Your task to perform on an android device: Go to ESPN.com Image 0: 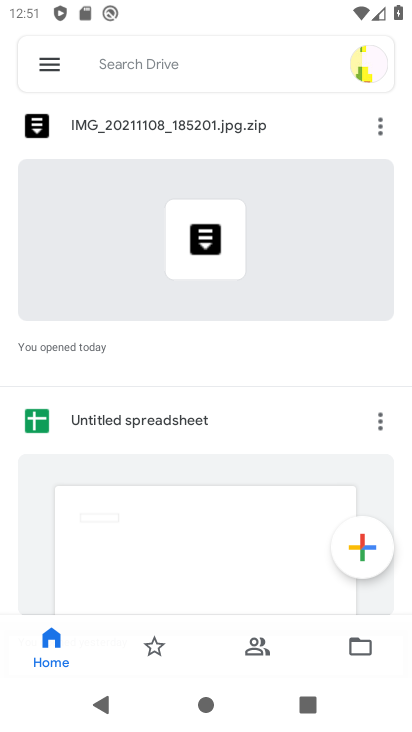
Step 0: press back button
Your task to perform on an android device: Go to ESPN.com Image 1: 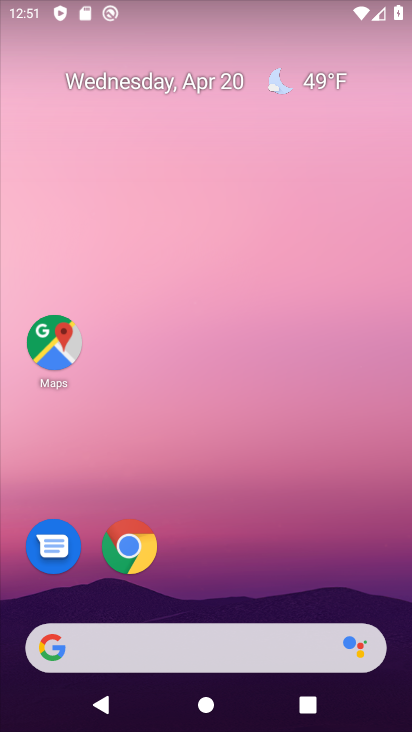
Step 1: click (136, 542)
Your task to perform on an android device: Go to ESPN.com Image 2: 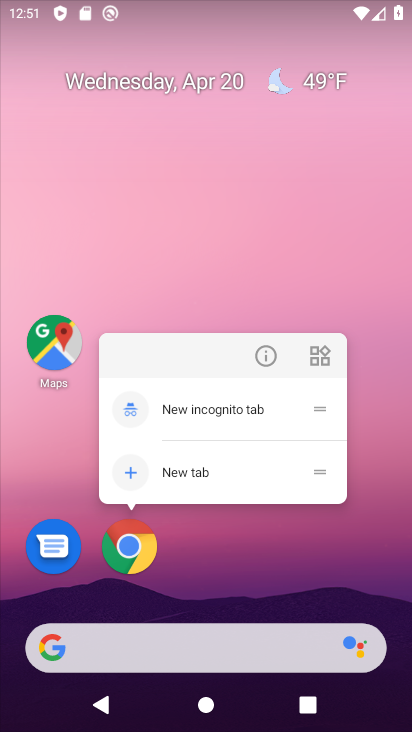
Step 2: click (136, 542)
Your task to perform on an android device: Go to ESPN.com Image 3: 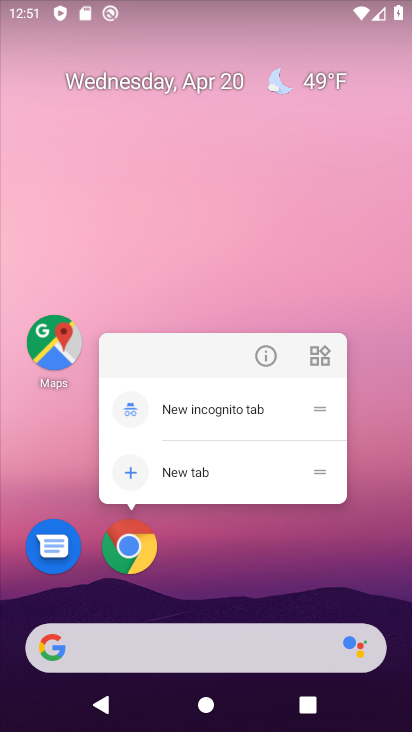
Step 3: click (124, 556)
Your task to perform on an android device: Go to ESPN.com Image 4: 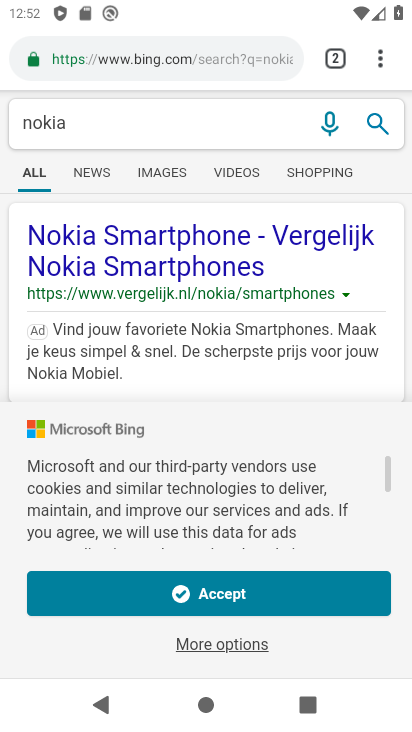
Step 4: click (337, 62)
Your task to perform on an android device: Go to ESPN.com Image 5: 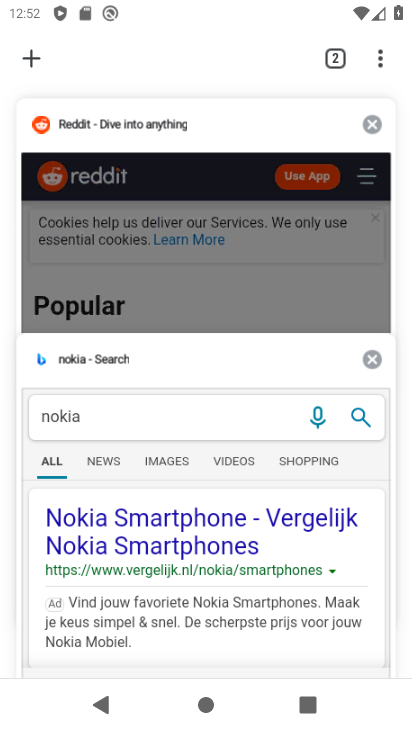
Step 5: click (30, 47)
Your task to perform on an android device: Go to ESPN.com Image 6: 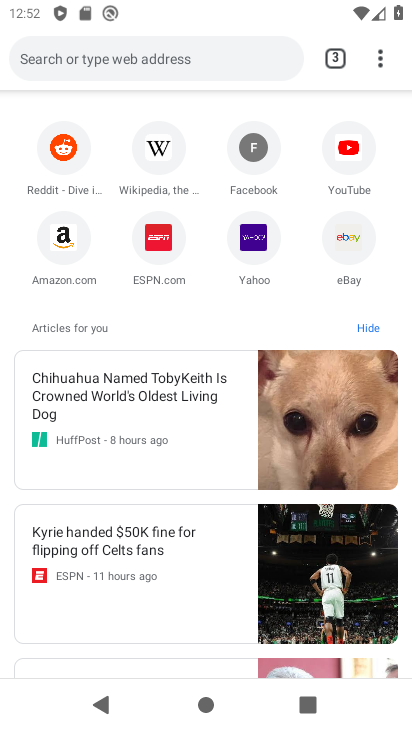
Step 6: click (159, 239)
Your task to perform on an android device: Go to ESPN.com Image 7: 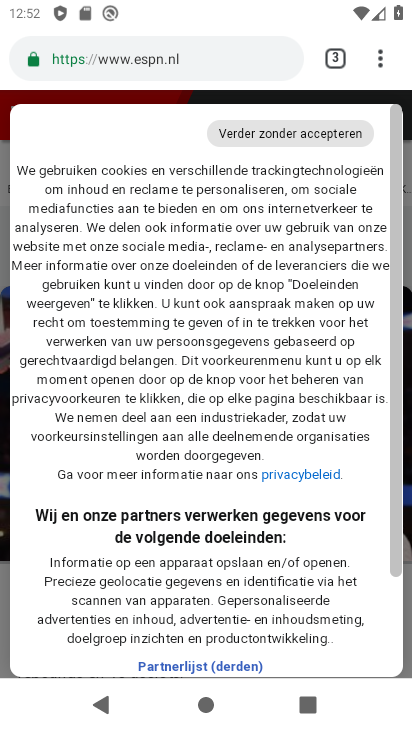
Step 7: task complete